Your task to perform on an android device: Open Google Chrome and open the bookmarks view Image 0: 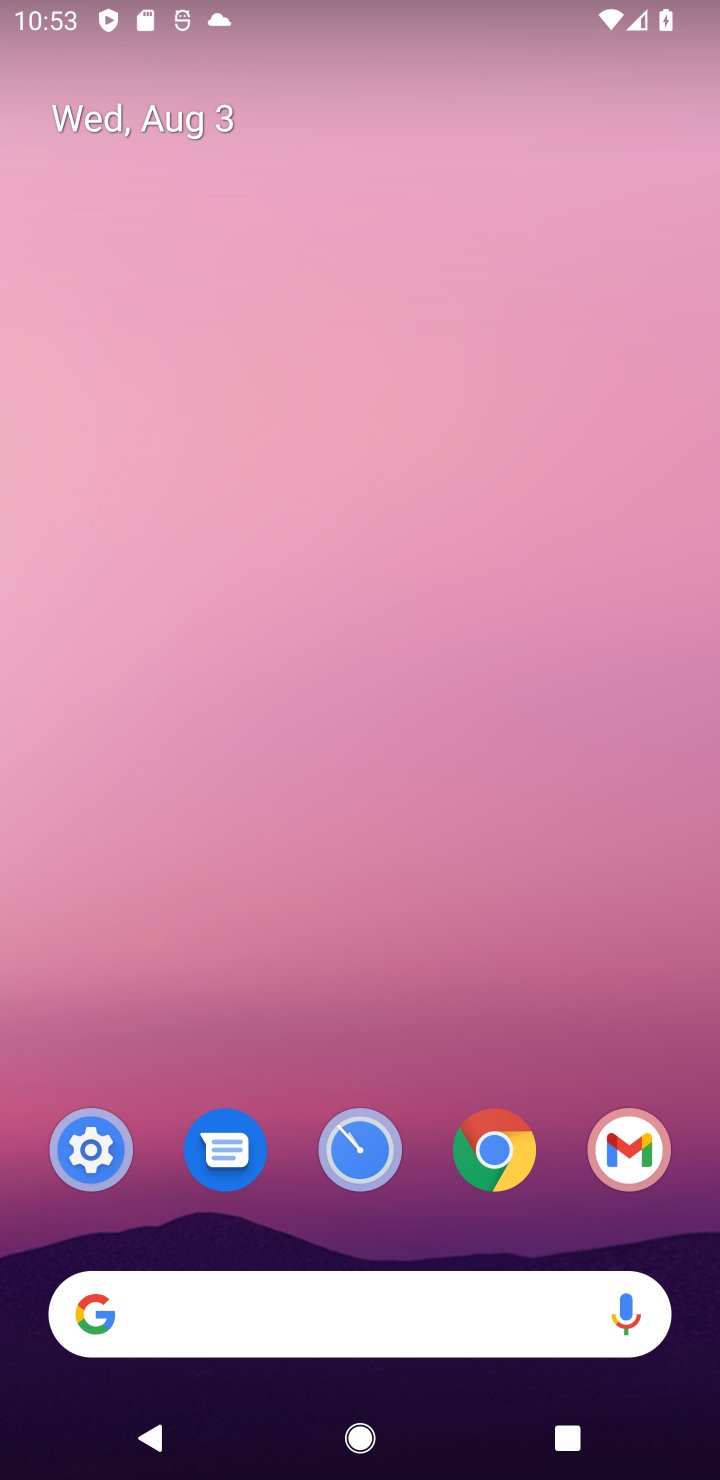
Step 0: press home button
Your task to perform on an android device: Open Google Chrome and open the bookmarks view Image 1: 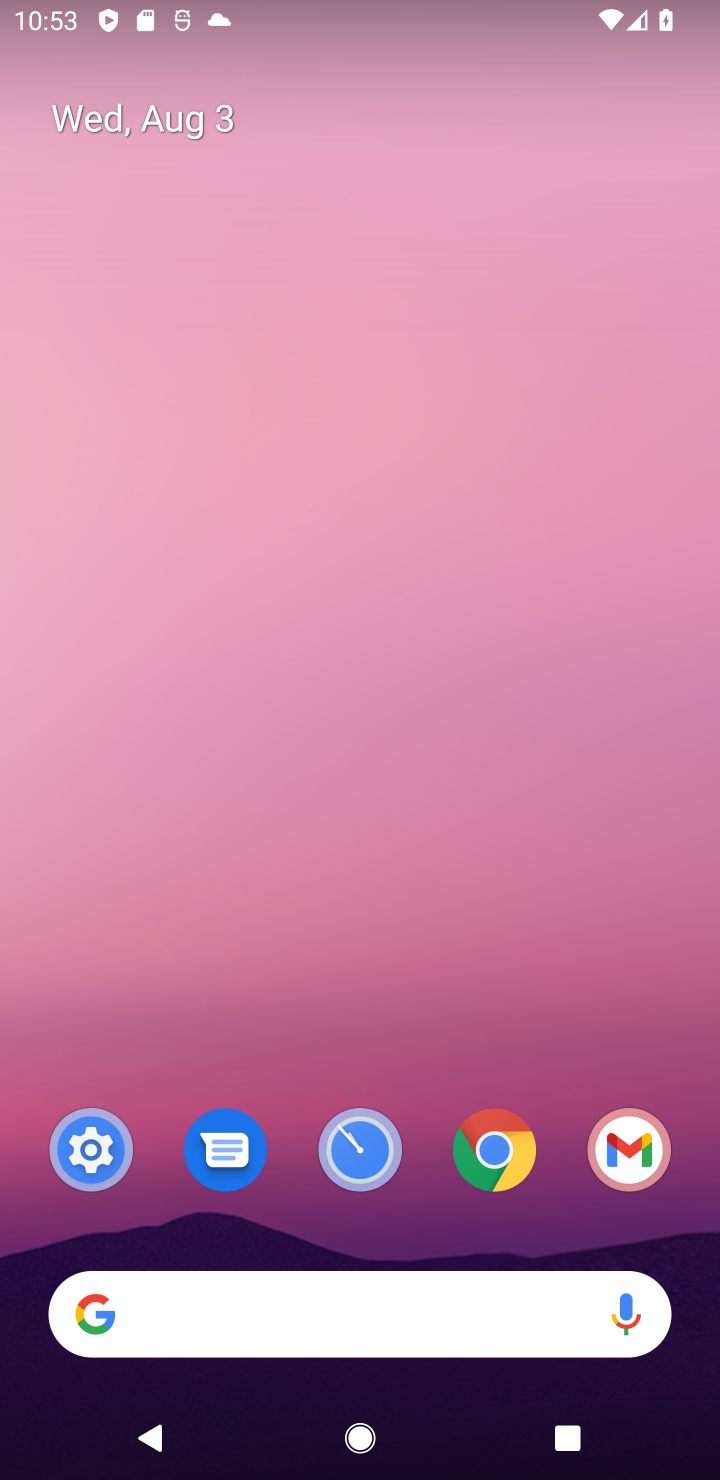
Step 1: drag from (571, 1073) to (623, 321)
Your task to perform on an android device: Open Google Chrome and open the bookmarks view Image 2: 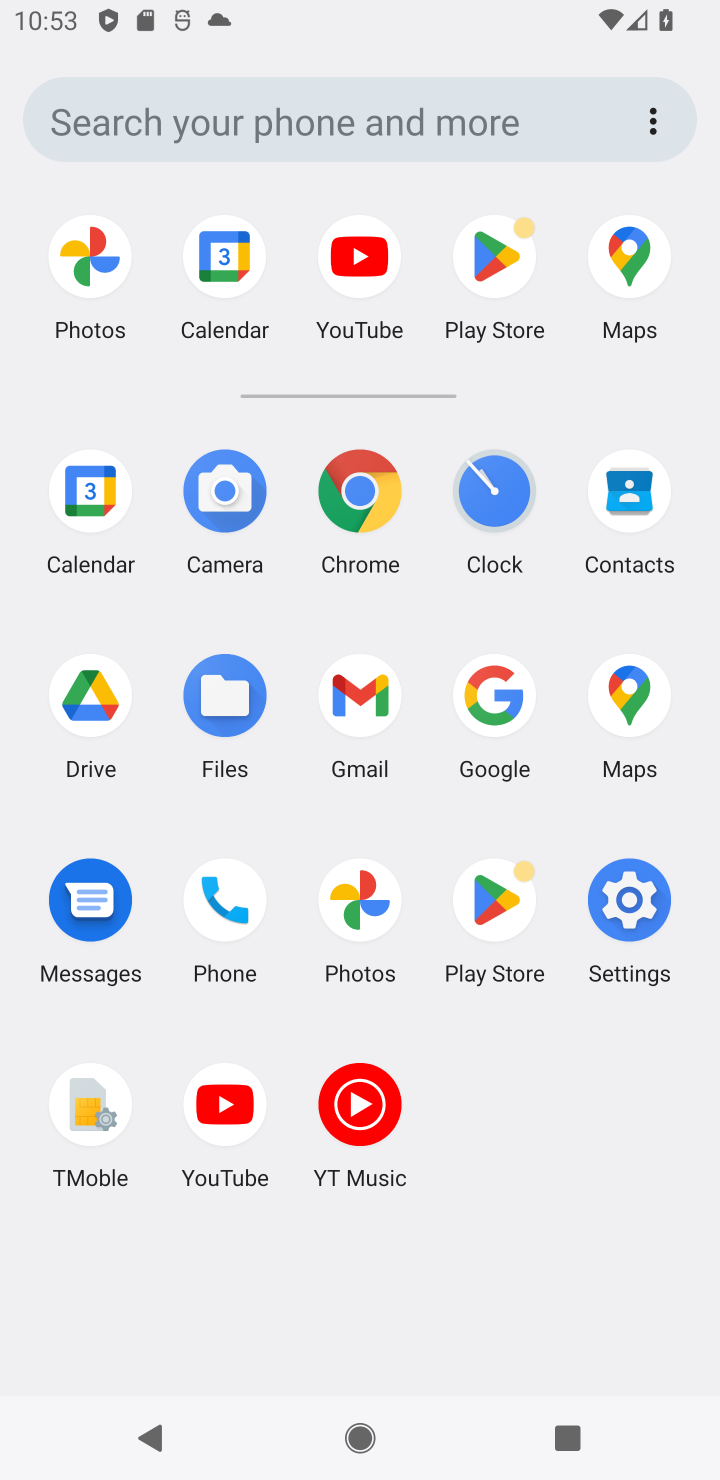
Step 2: click (368, 491)
Your task to perform on an android device: Open Google Chrome and open the bookmarks view Image 3: 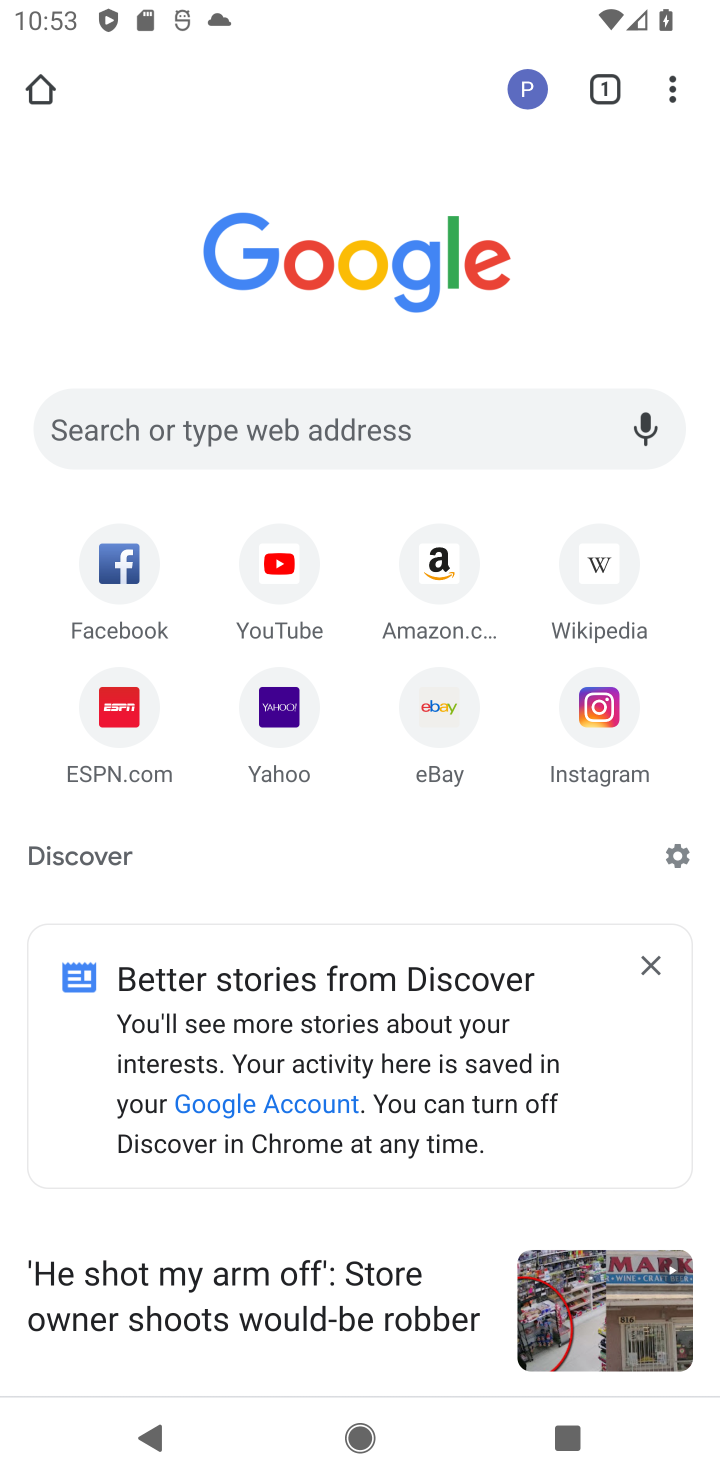
Step 3: click (681, 90)
Your task to perform on an android device: Open Google Chrome and open the bookmarks view Image 4: 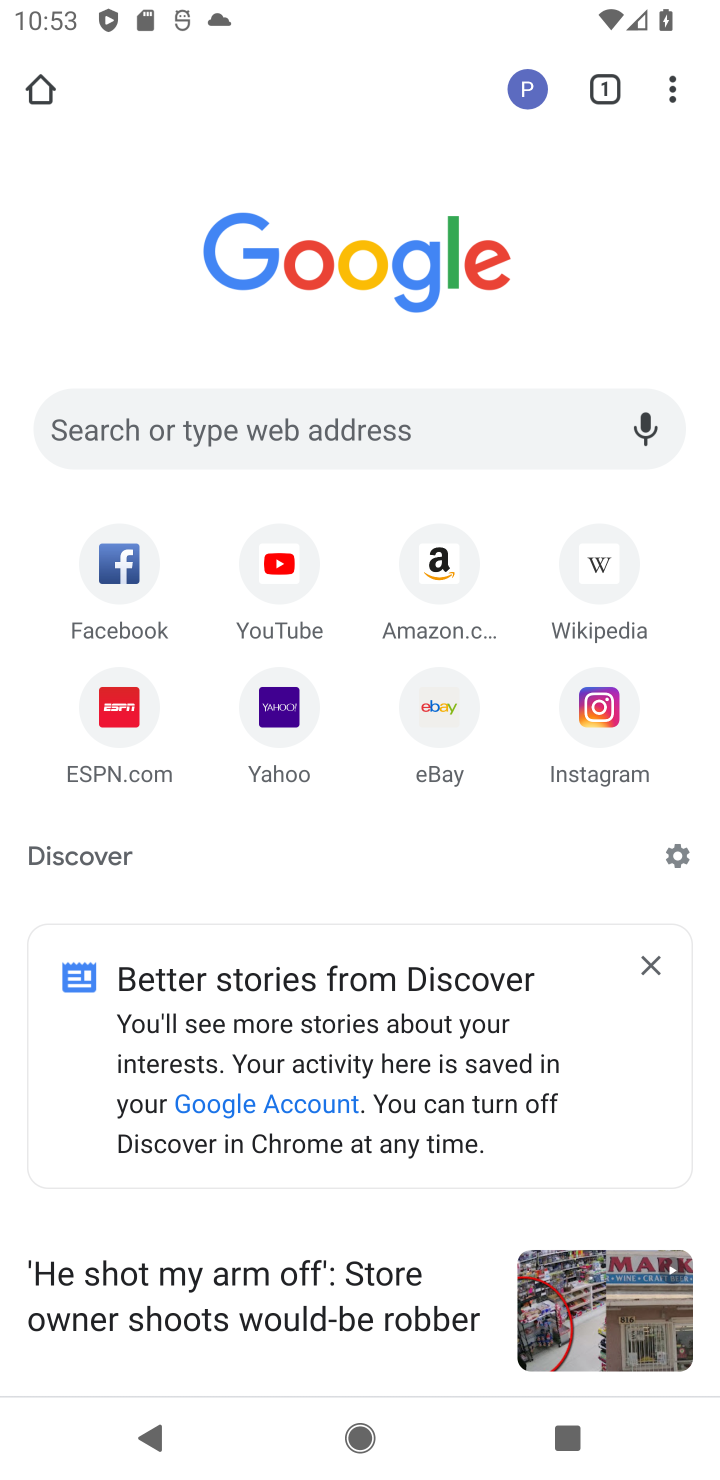
Step 4: click (675, 100)
Your task to perform on an android device: Open Google Chrome and open the bookmarks view Image 5: 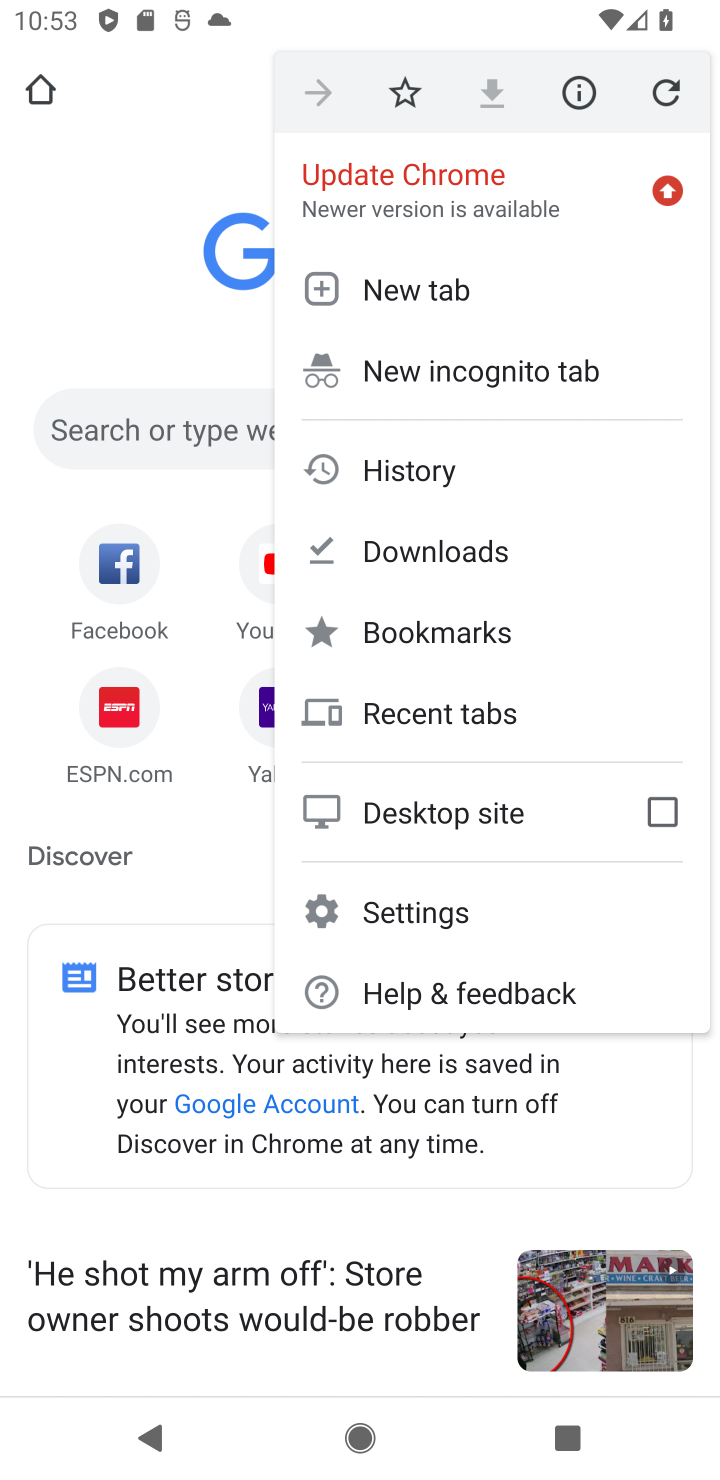
Step 5: click (471, 637)
Your task to perform on an android device: Open Google Chrome and open the bookmarks view Image 6: 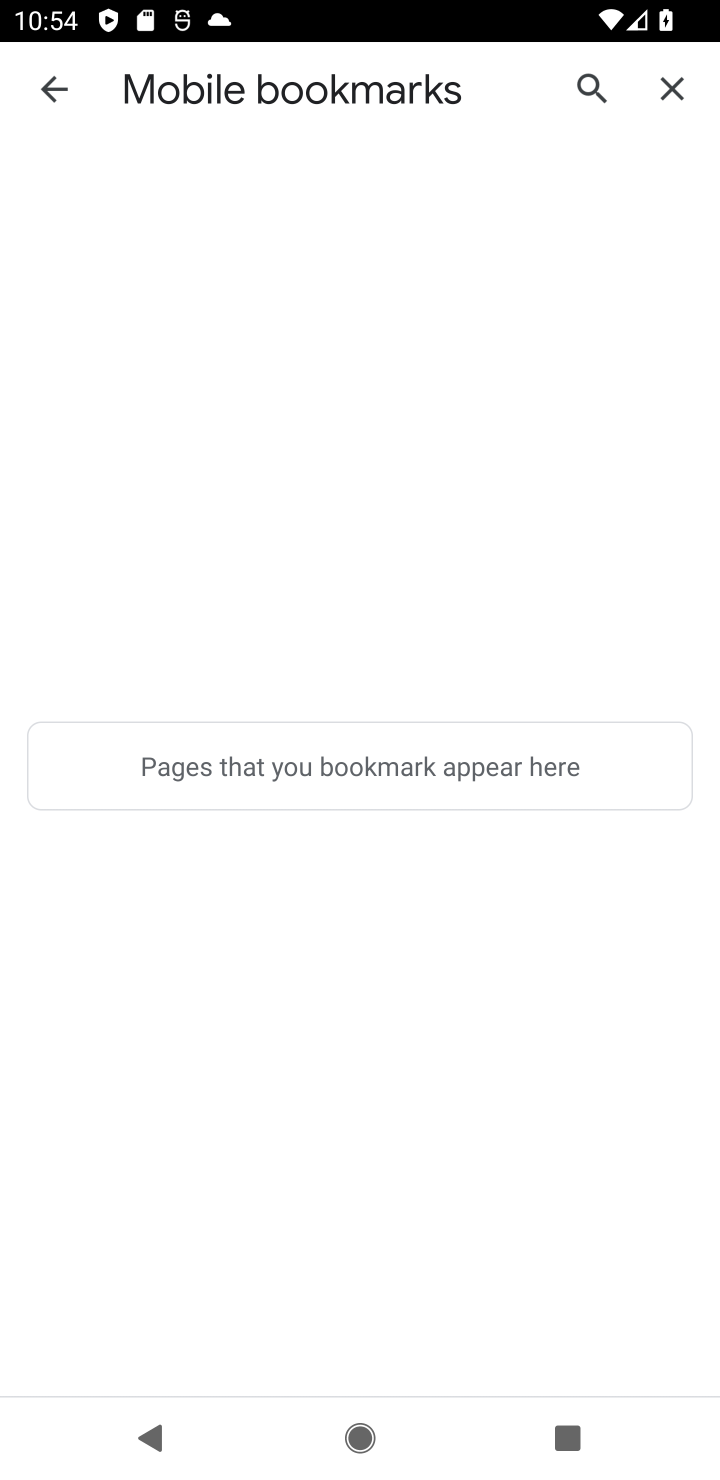
Step 6: task complete